Your task to perform on an android device: Go to ESPN.com Image 0: 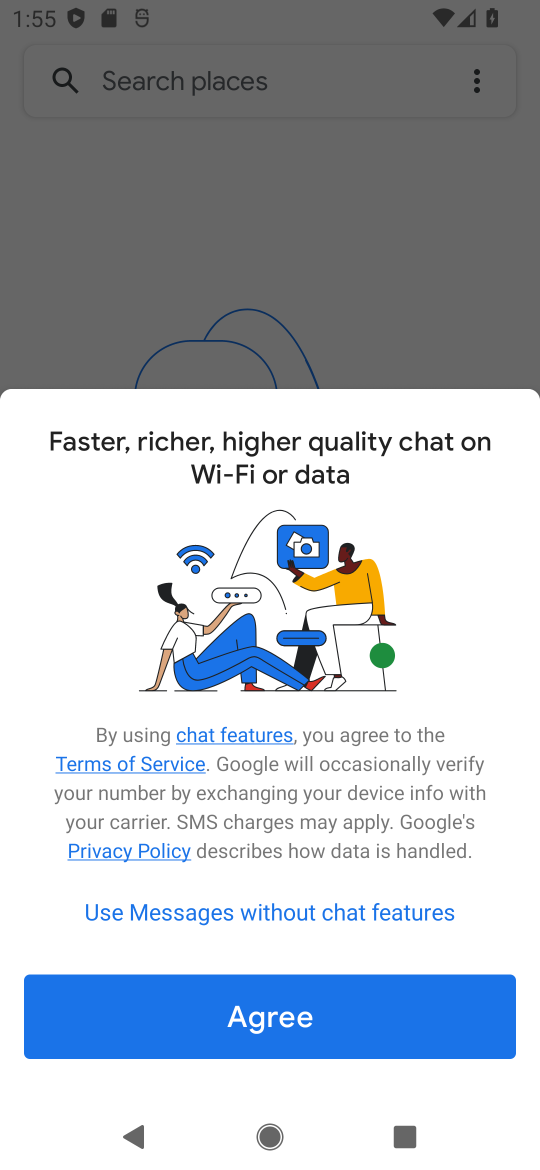
Step 0: press home button
Your task to perform on an android device: Go to ESPN.com Image 1: 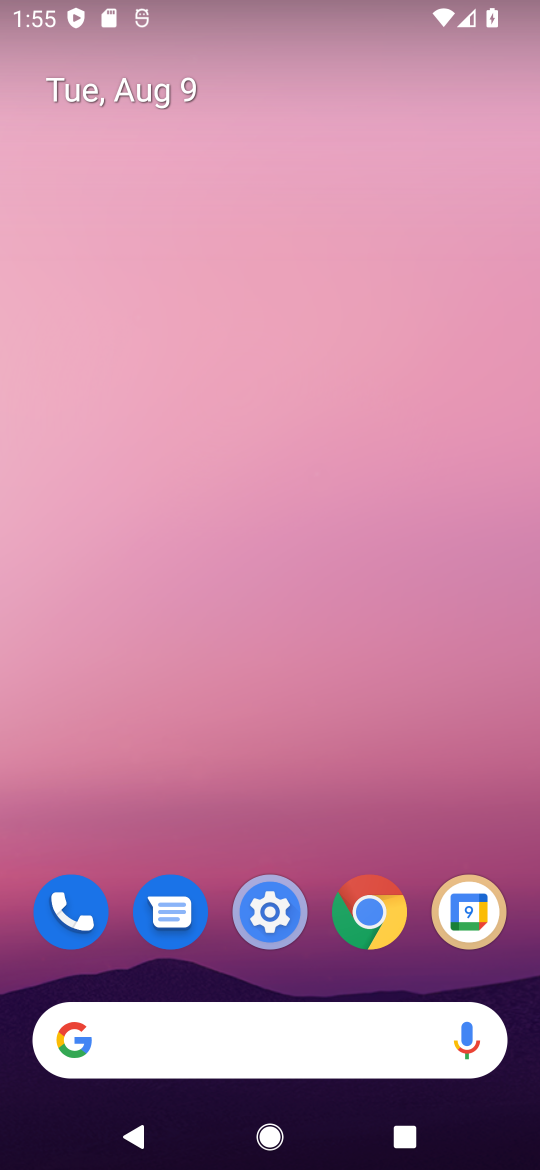
Step 1: click (372, 908)
Your task to perform on an android device: Go to ESPN.com Image 2: 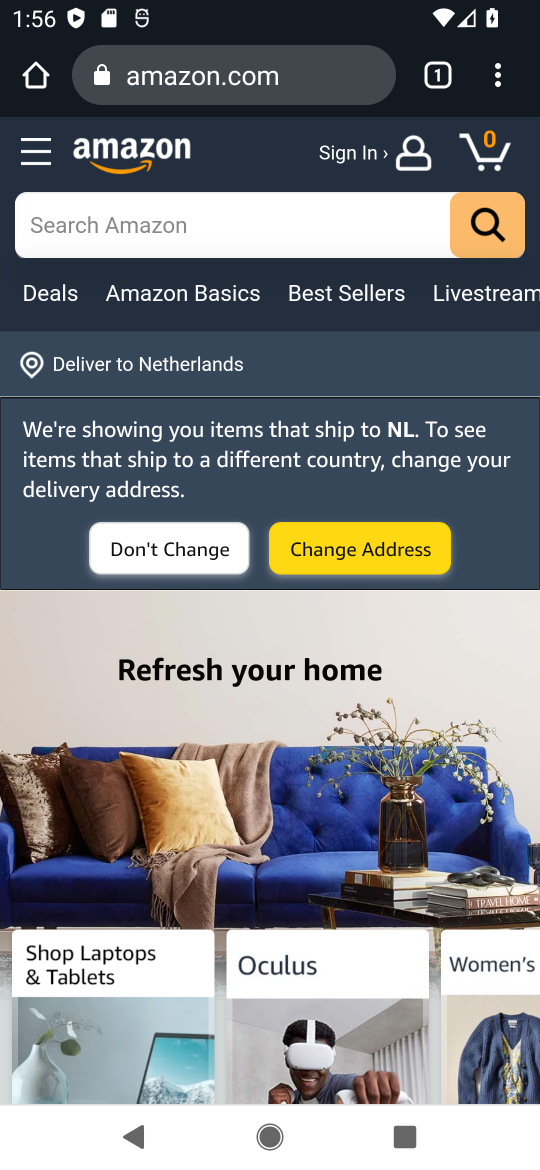
Step 2: click (497, 52)
Your task to perform on an android device: Go to ESPN.com Image 3: 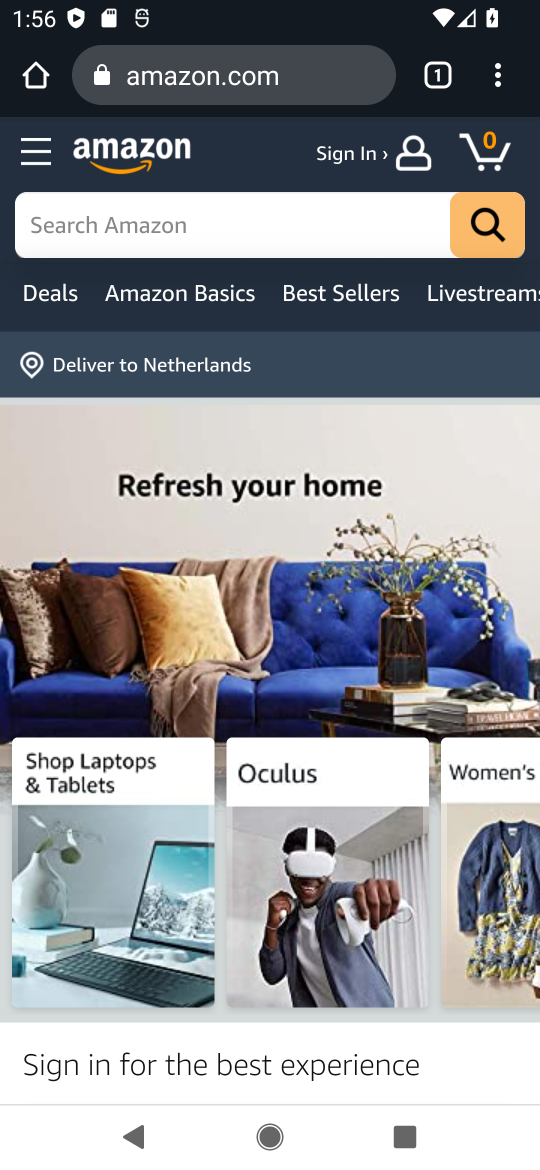
Step 3: click (502, 79)
Your task to perform on an android device: Go to ESPN.com Image 4: 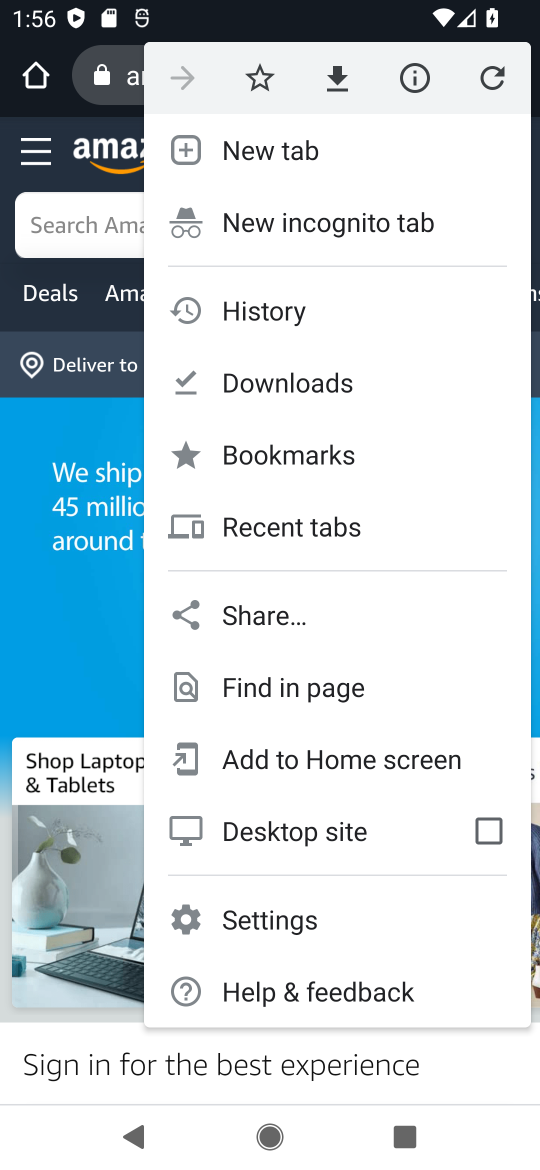
Step 4: click (278, 154)
Your task to perform on an android device: Go to ESPN.com Image 5: 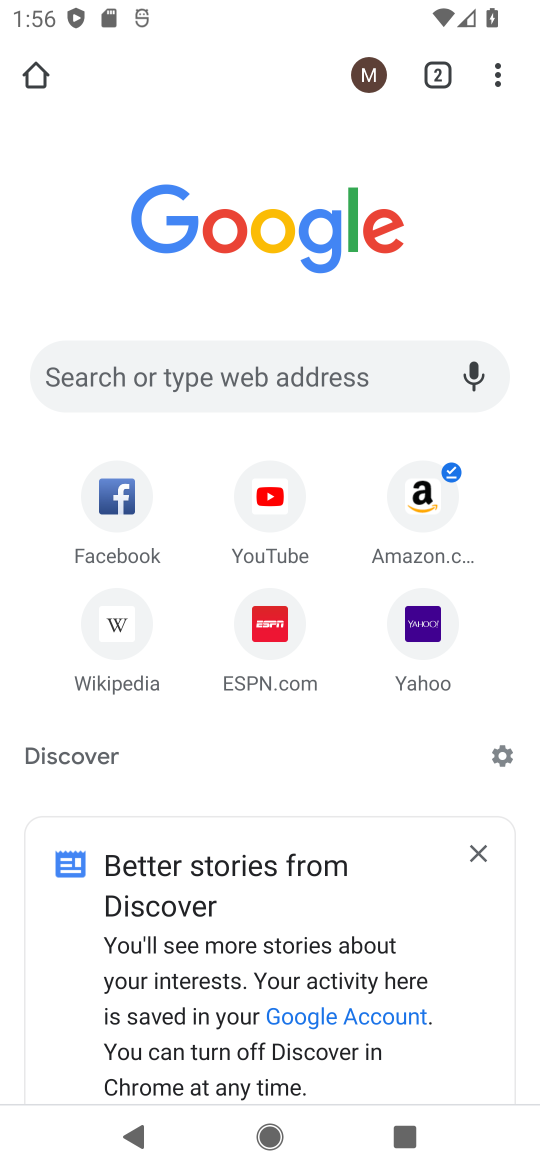
Step 5: click (262, 619)
Your task to perform on an android device: Go to ESPN.com Image 6: 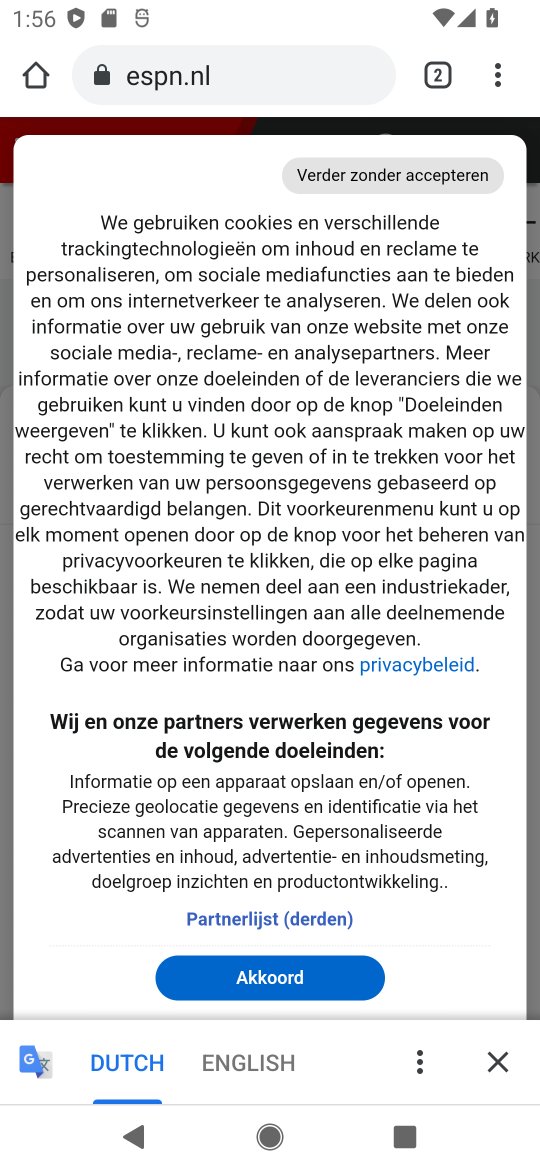
Step 6: click (252, 984)
Your task to perform on an android device: Go to ESPN.com Image 7: 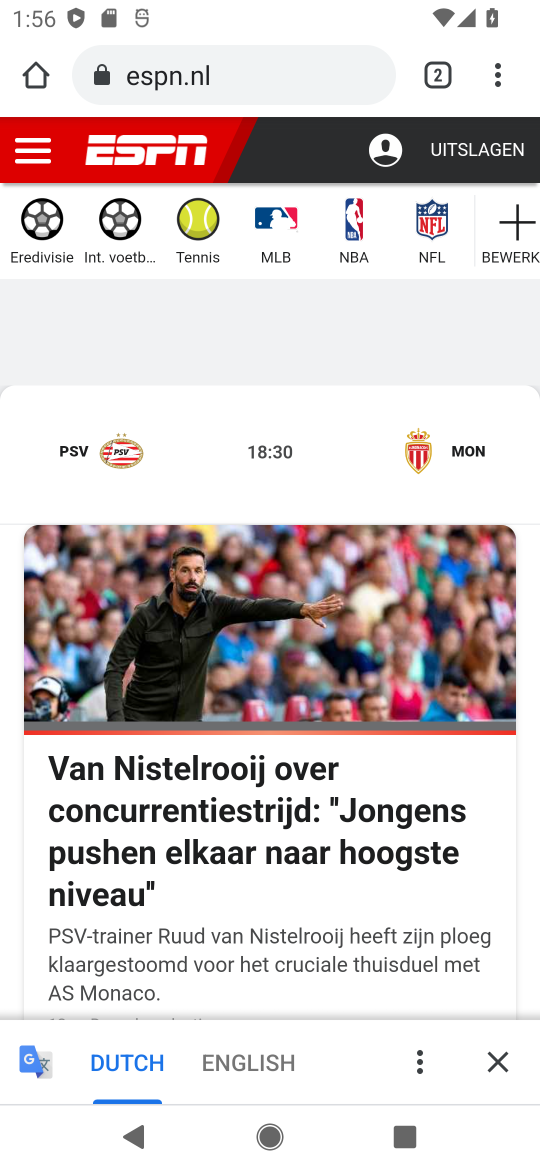
Step 7: task complete